Your task to perform on an android device: turn on improve location accuracy Image 0: 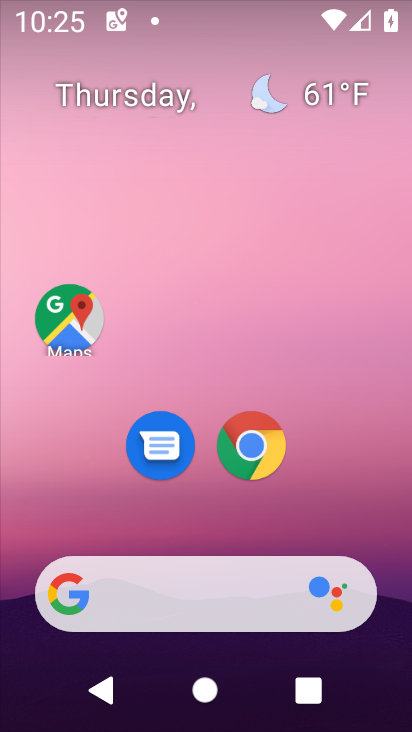
Step 0: drag from (205, 480) to (252, 64)
Your task to perform on an android device: turn on improve location accuracy Image 1: 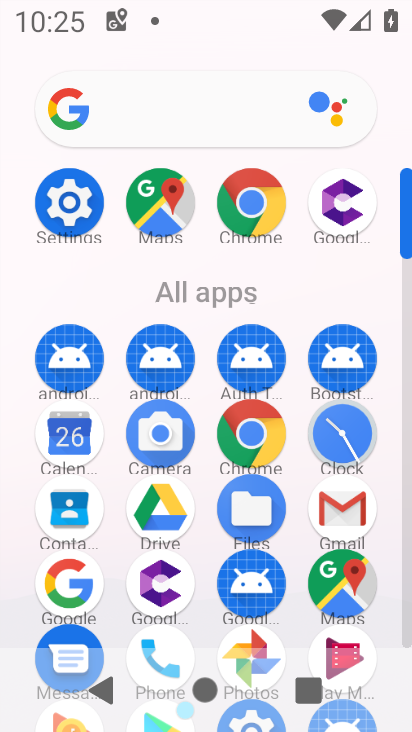
Step 1: click (59, 194)
Your task to perform on an android device: turn on improve location accuracy Image 2: 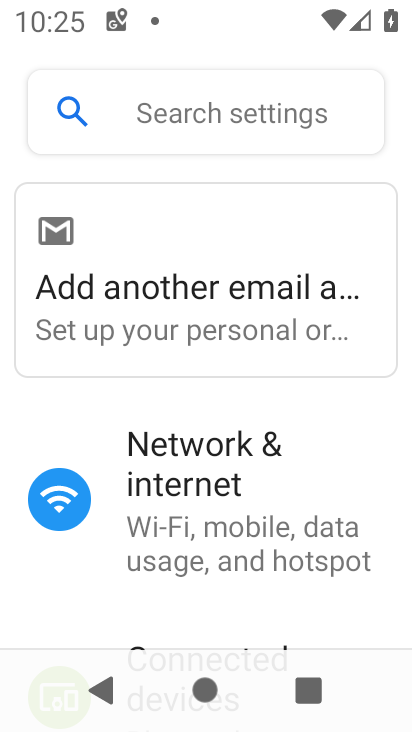
Step 2: drag from (202, 582) to (185, 98)
Your task to perform on an android device: turn on improve location accuracy Image 3: 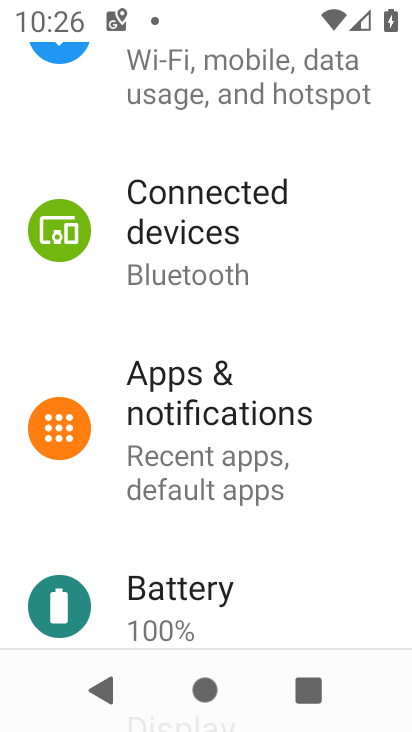
Step 3: drag from (215, 537) to (196, 119)
Your task to perform on an android device: turn on improve location accuracy Image 4: 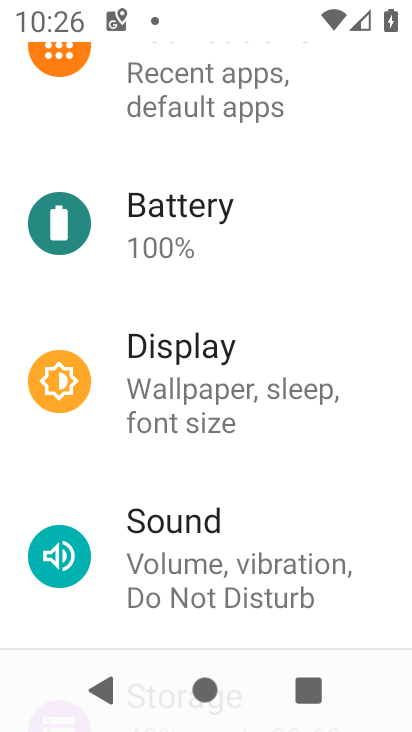
Step 4: drag from (136, 577) to (151, 153)
Your task to perform on an android device: turn on improve location accuracy Image 5: 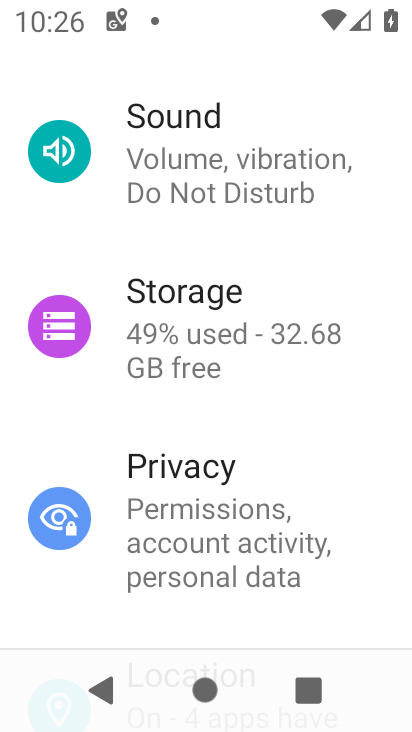
Step 5: drag from (141, 536) to (144, 121)
Your task to perform on an android device: turn on improve location accuracy Image 6: 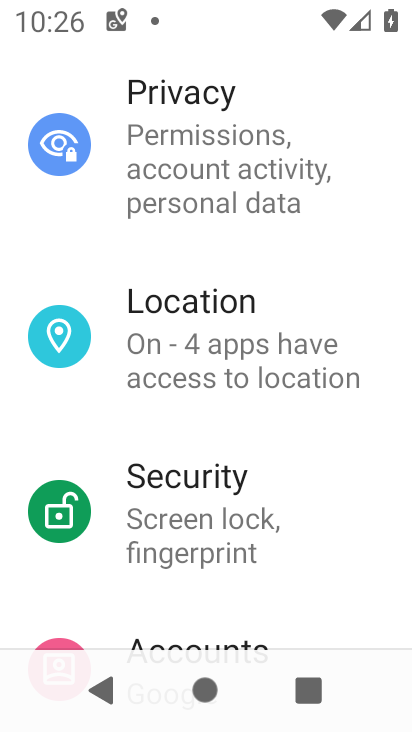
Step 6: click (182, 352)
Your task to perform on an android device: turn on improve location accuracy Image 7: 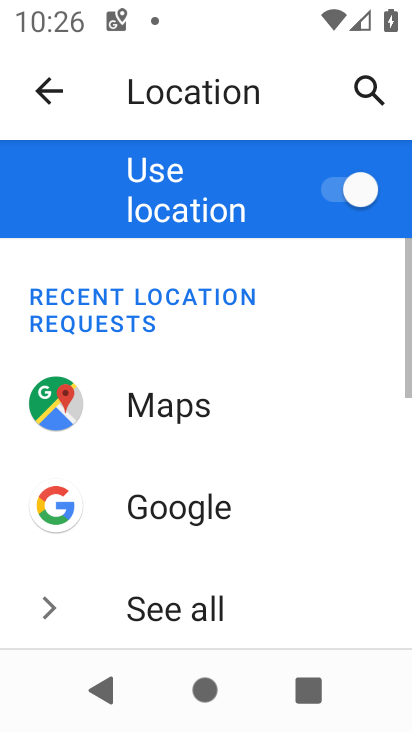
Step 7: drag from (182, 596) to (205, 92)
Your task to perform on an android device: turn on improve location accuracy Image 8: 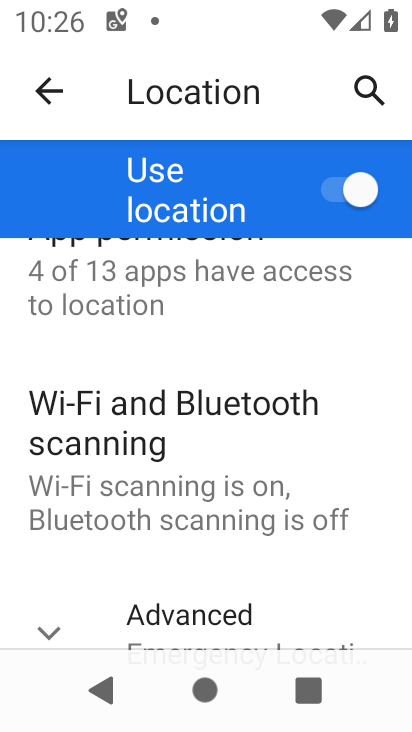
Step 8: drag from (152, 584) to (211, 72)
Your task to perform on an android device: turn on improve location accuracy Image 9: 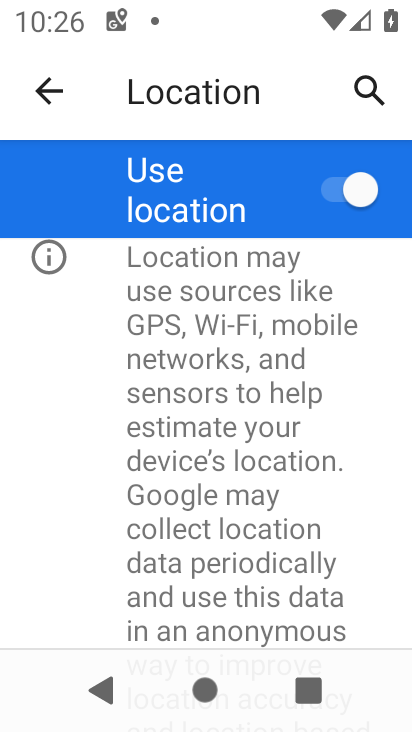
Step 9: drag from (208, 326) to (234, 624)
Your task to perform on an android device: turn on improve location accuracy Image 10: 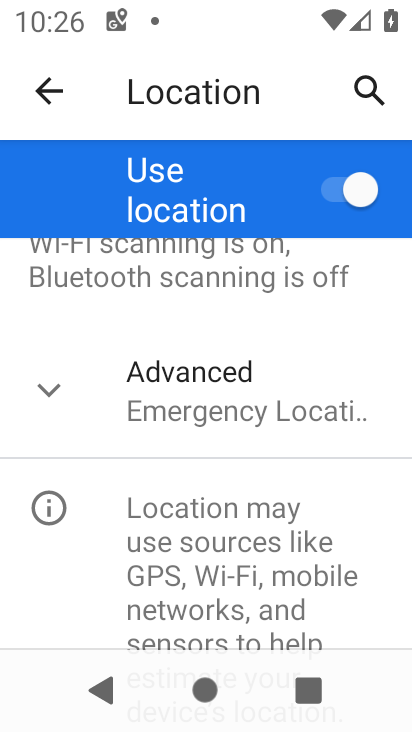
Step 10: click (156, 405)
Your task to perform on an android device: turn on improve location accuracy Image 11: 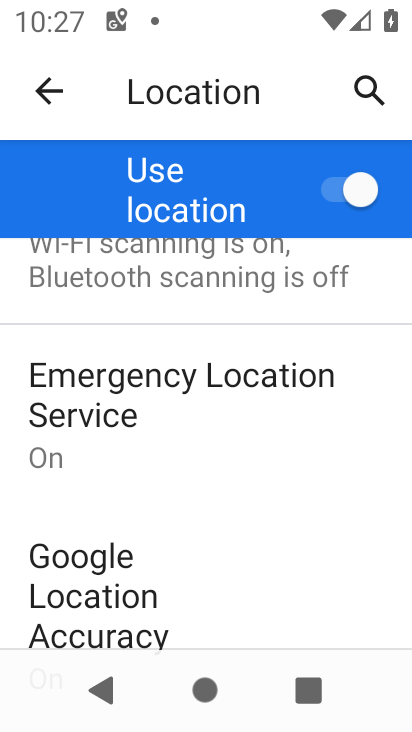
Step 11: click (120, 616)
Your task to perform on an android device: turn on improve location accuracy Image 12: 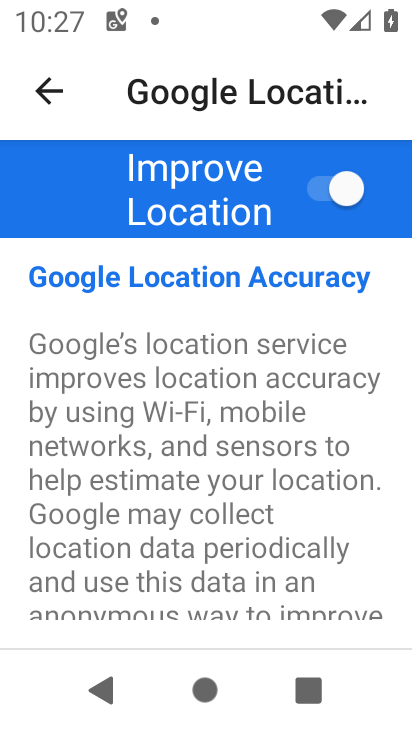
Step 12: task complete